Your task to perform on an android device: Open battery settings Image 0: 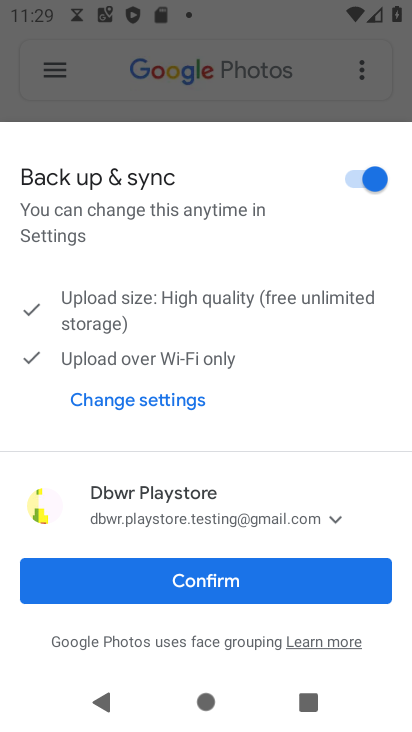
Step 0: press home button
Your task to perform on an android device: Open battery settings Image 1: 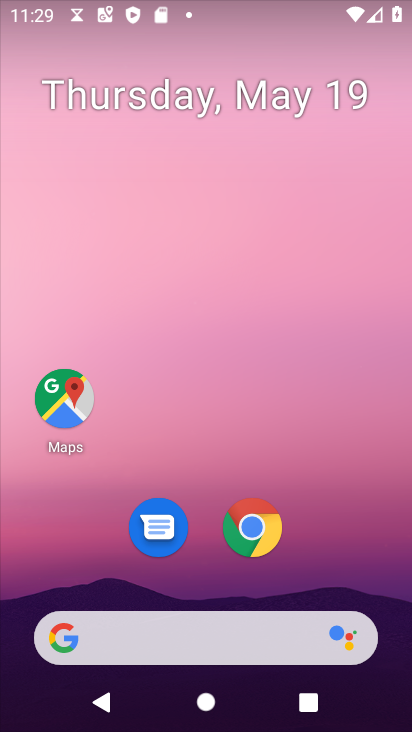
Step 1: drag from (188, 468) to (215, 221)
Your task to perform on an android device: Open battery settings Image 2: 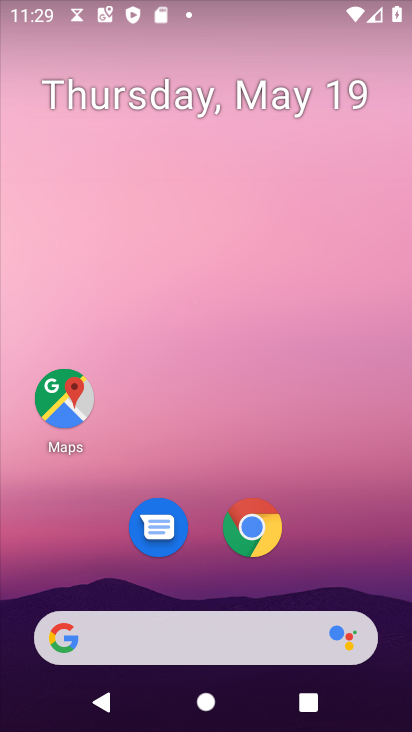
Step 2: drag from (204, 567) to (245, 31)
Your task to perform on an android device: Open battery settings Image 3: 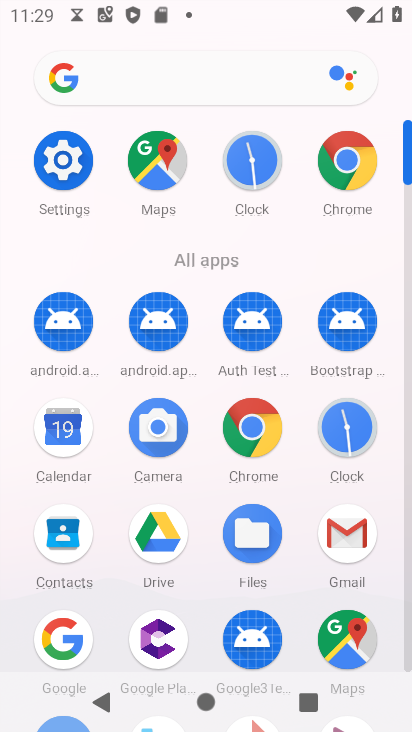
Step 3: drag from (207, 601) to (238, 116)
Your task to perform on an android device: Open battery settings Image 4: 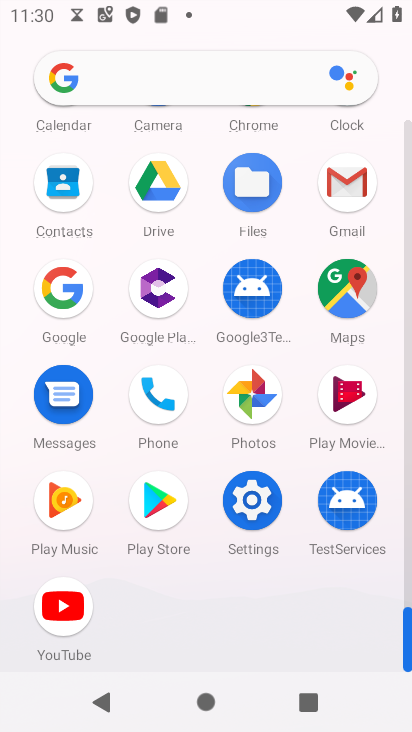
Step 4: click (254, 524)
Your task to perform on an android device: Open battery settings Image 5: 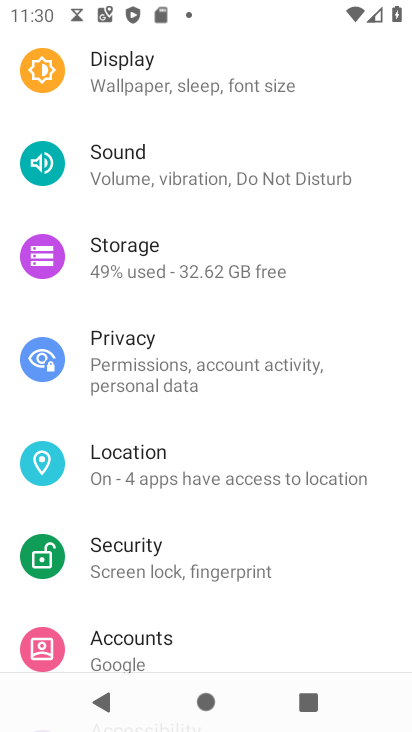
Step 5: drag from (242, 271) to (231, 642)
Your task to perform on an android device: Open battery settings Image 6: 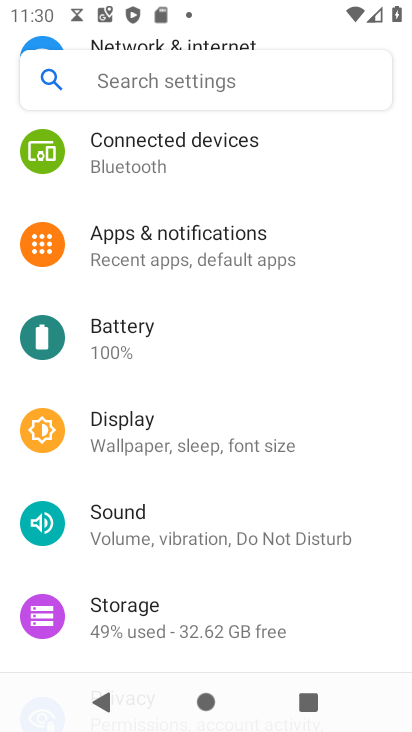
Step 6: click (160, 345)
Your task to perform on an android device: Open battery settings Image 7: 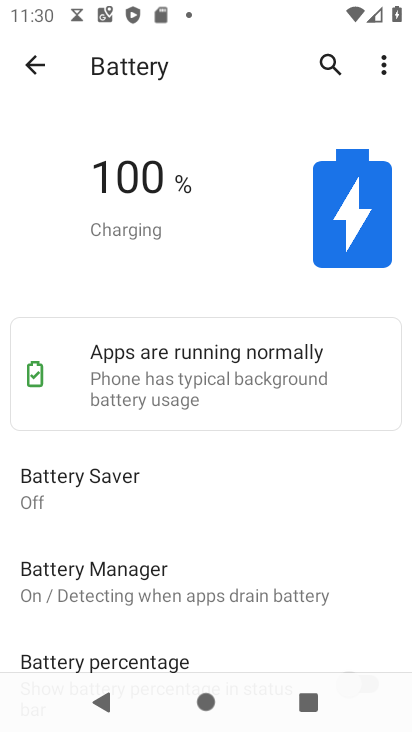
Step 7: task complete